Your task to perform on an android device: toggle notifications settings in the gmail app Image 0: 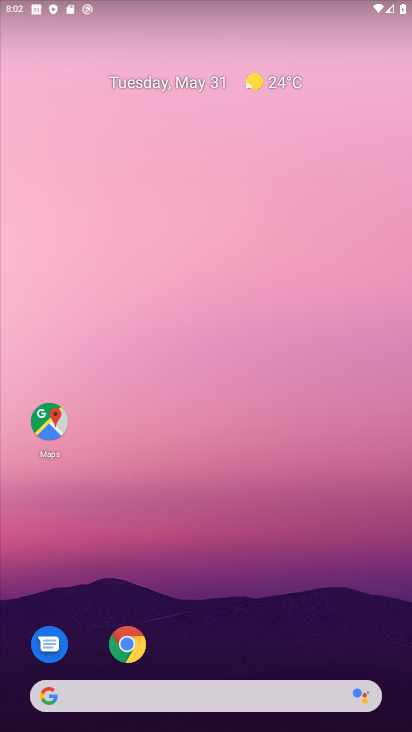
Step 0: drag from (227, 667) to (1, 51)
Your task to perform on an android device: toggle notifications settings in the gmail app Image 1: 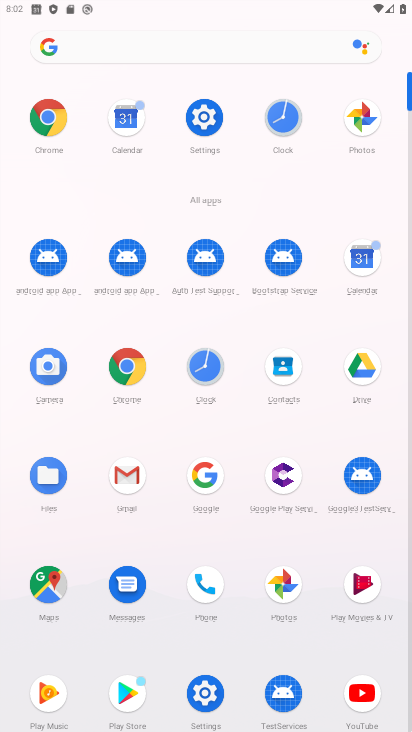
Step 1: click (125, 486)
Your task to perform on an android device: toggle notifications settings in the gmail app Image 2: 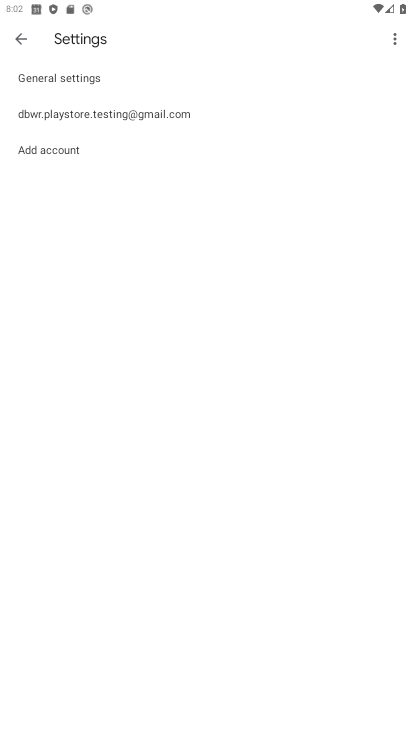
Step 2: click (54, 110)
Your task to perform on an android device: toggle notifications settings in the gmail app Image 3: 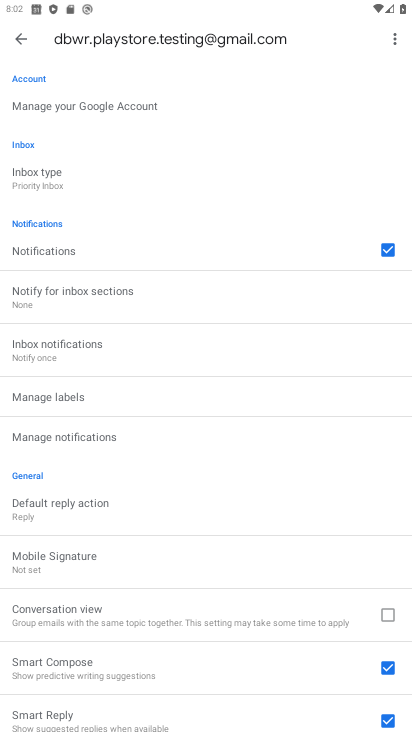
Step 3: click (37, 431)
Your task to perform on an android device: toggle notifications settings in the gmail app Image 4: 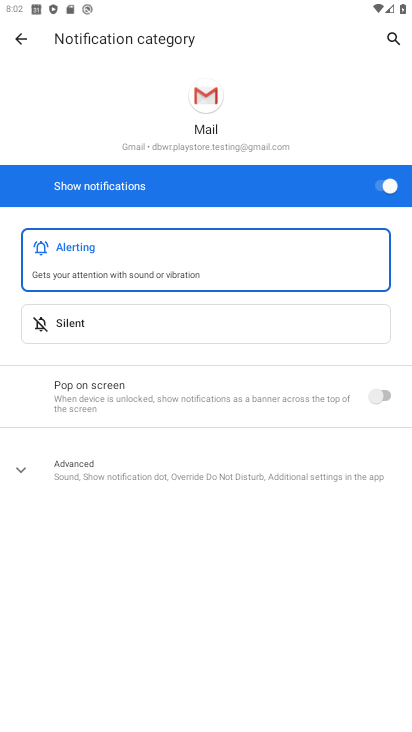
Step 4: click (378, 187)
Your task to perform on an android device: toggle notifications settings in the gmail app Image 5: 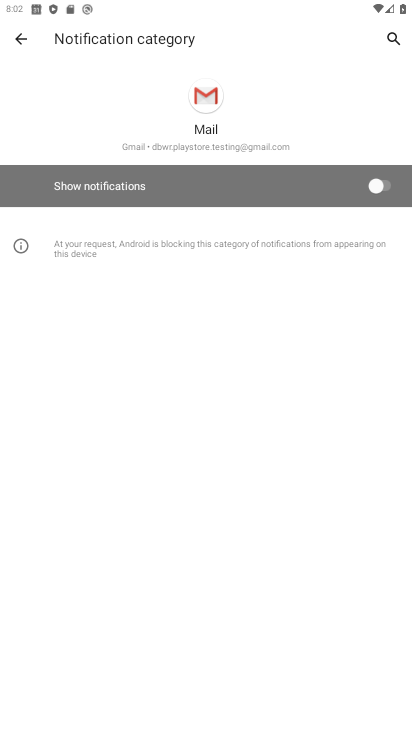
Step 5: task complete